Your task to perform on an android device: toggle improve location accuracy Image 0: 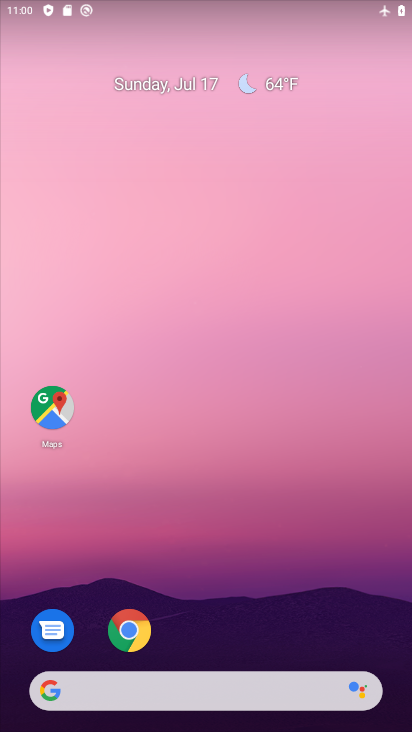
Step 0: drag from (377, 649) to (314, 102)
Your task to perform on an android device: toggle improve location accuracy Image 1: 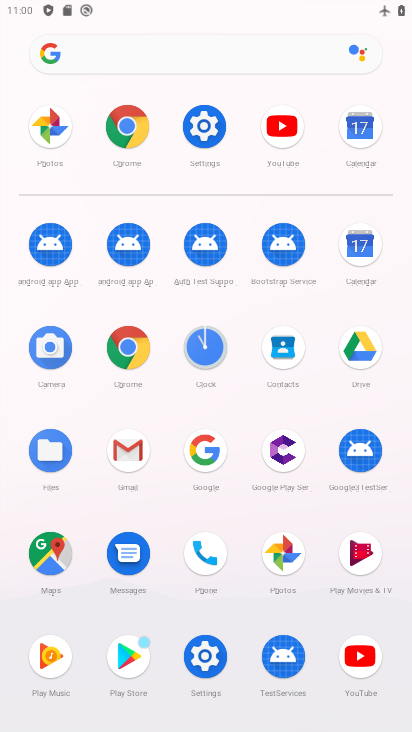
Step 1: click (204, 656)
Your task to perform on an android device: toggle improve location accuracy Image 2: 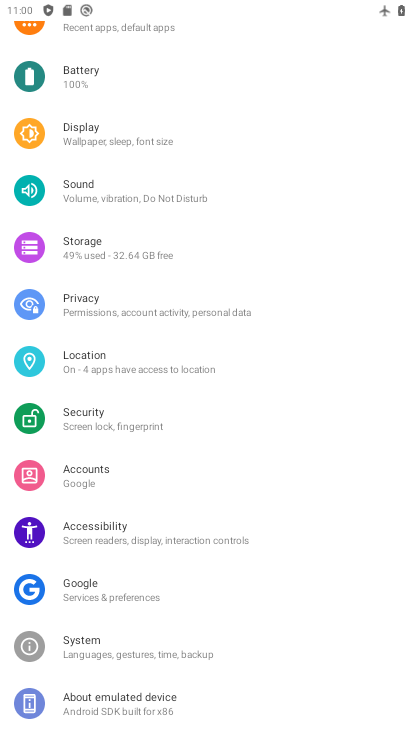
Step 2: click (91, 355)
Your task to perform on an android device: toggle improve location accuracy Image 3: 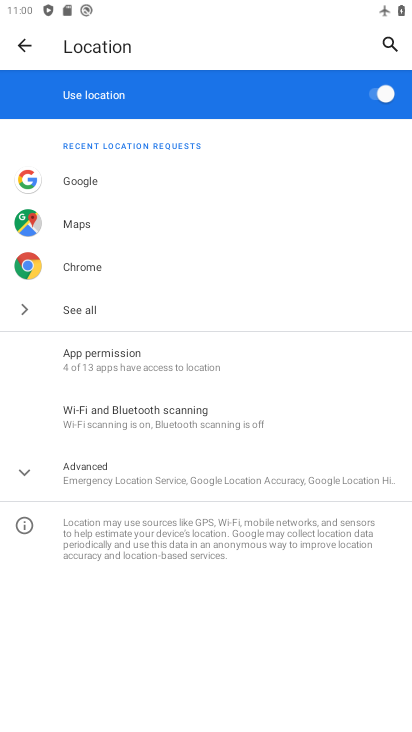
Step 3: click (21, 473)
Your task to perform on an android device: toggle improve location accuracy Image 4: 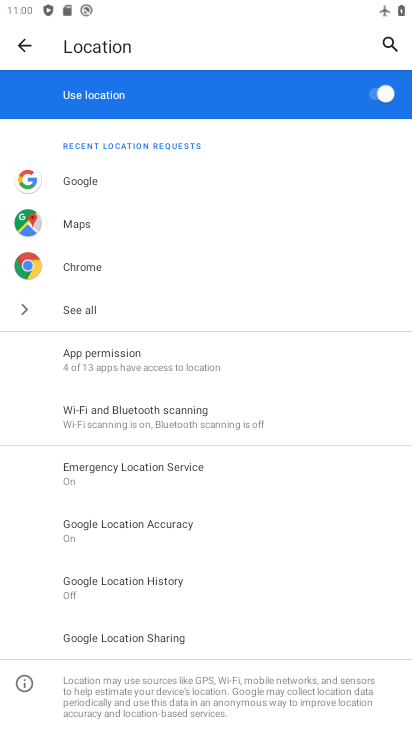
Step 4: click (117, 530)
Your task to perform on an android device: toggle improve location accuracy Image 5: 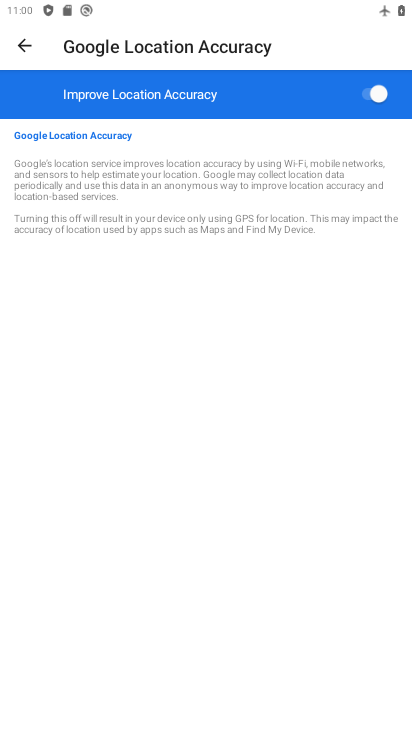
Step 5: click (365, 94)
Your task to perform on an android device: toggle improve location accuracy Image 6: 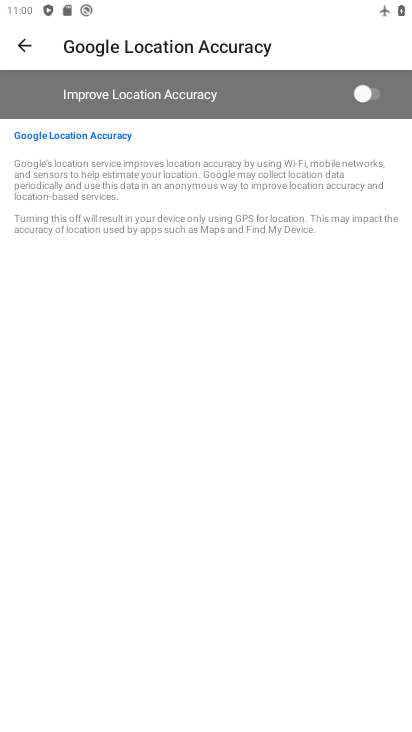
Step 6: task complete